Your task to perform on an android device: Show me a list of home improvement items on the Home Depot website. Image 0: 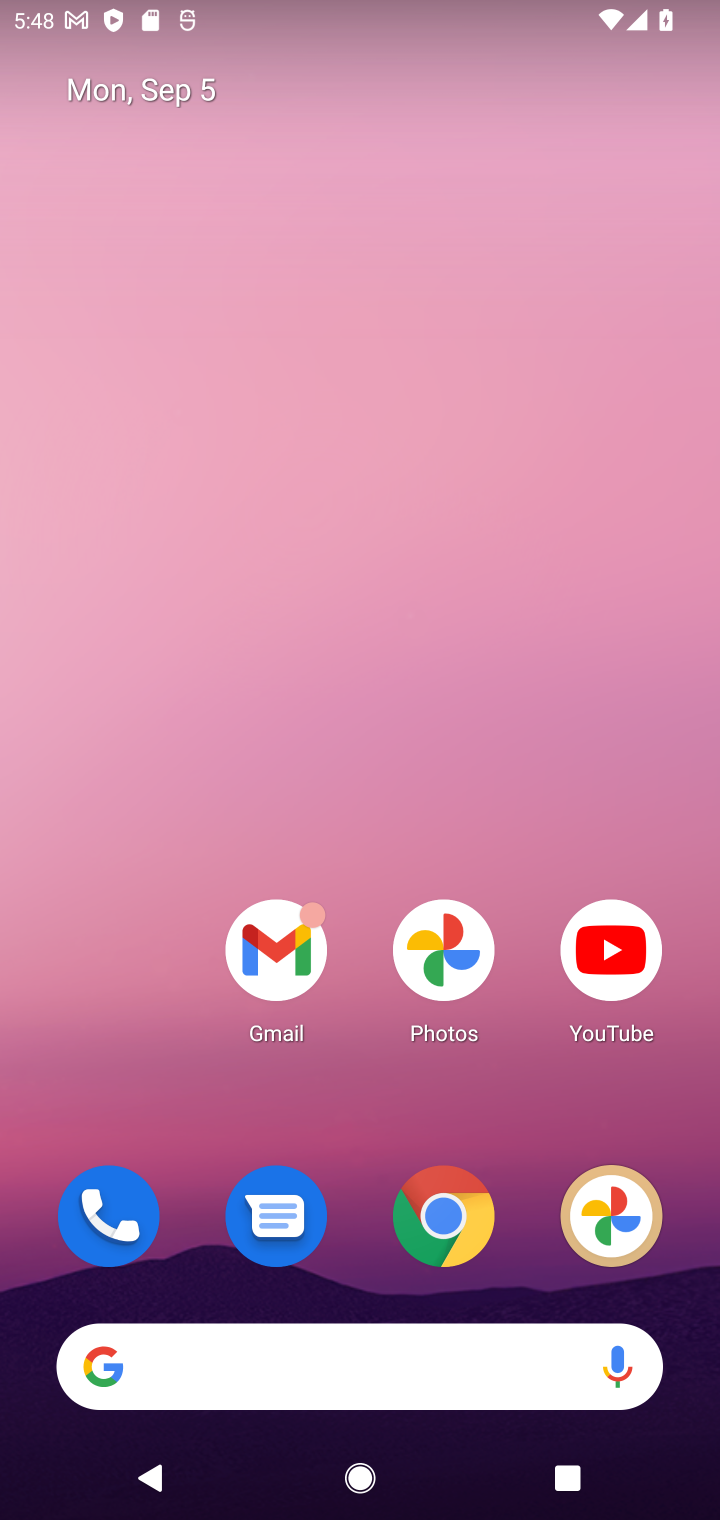
Step 0: click (430, 1218)
Your task to perform on an android device: Show me a list of home improvement items on the Home Depot website. Image 1: 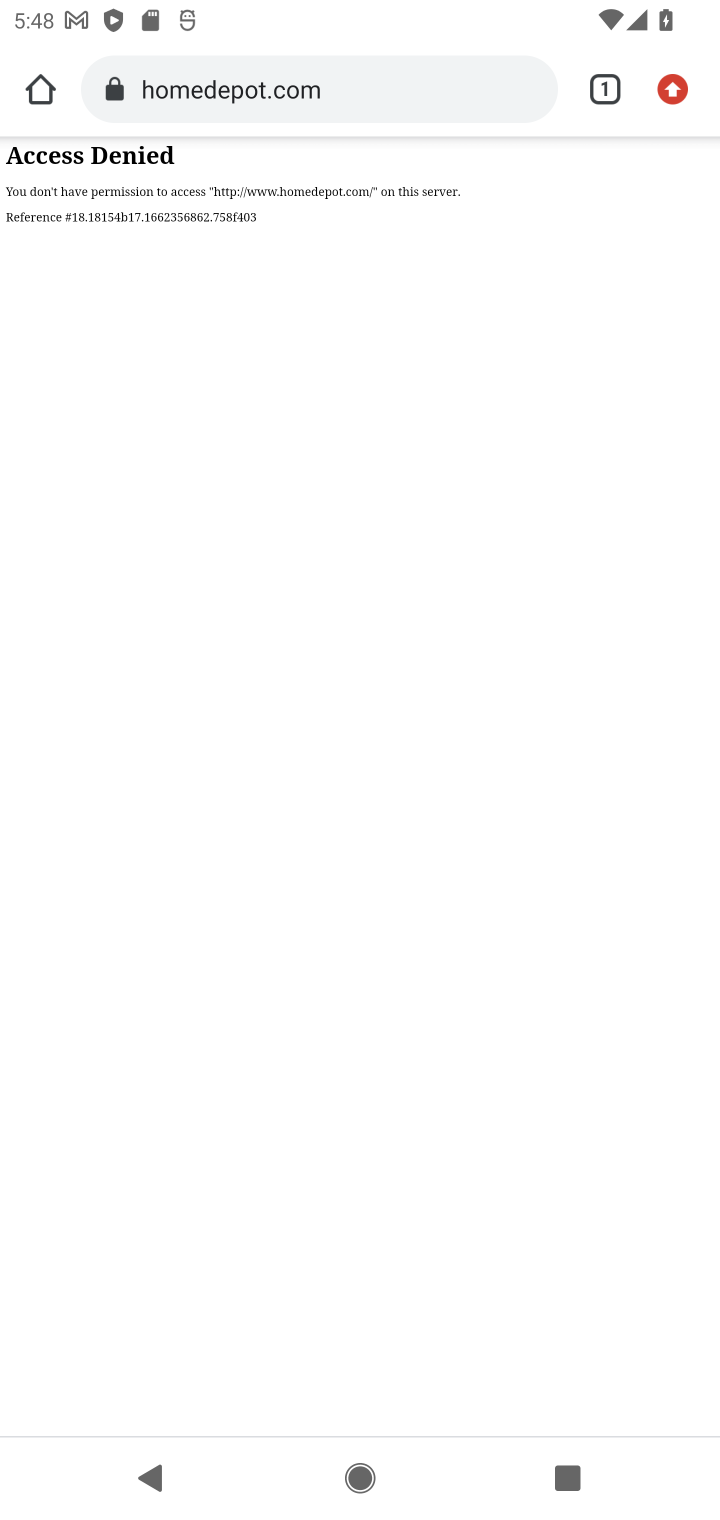
Step 1: task complete